Your task to perform on an android device: Open Youtube and go to "Your channel" Image 0: 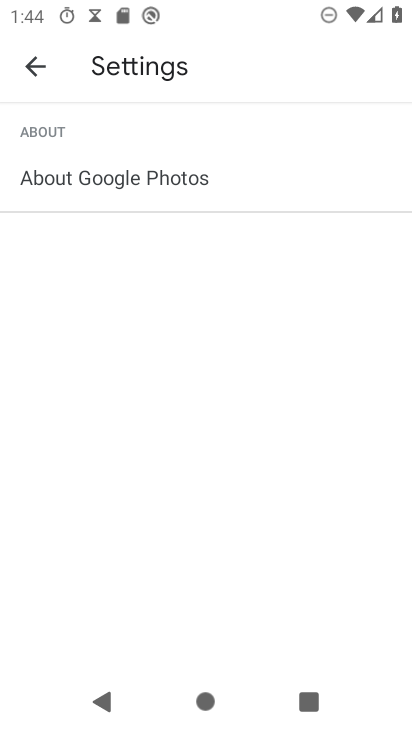
Step 0: press home button
Your task to perform on an android device: Open Youtube and go to "Your channel" Image 1: 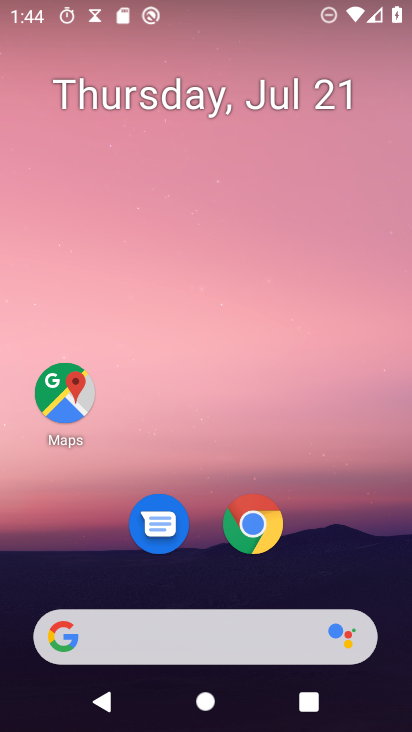
Step 1: drag from (267, 633) to (397, 122)
Your task to perform on an android device: Open Youtube and go to "Your channel" Image 2: 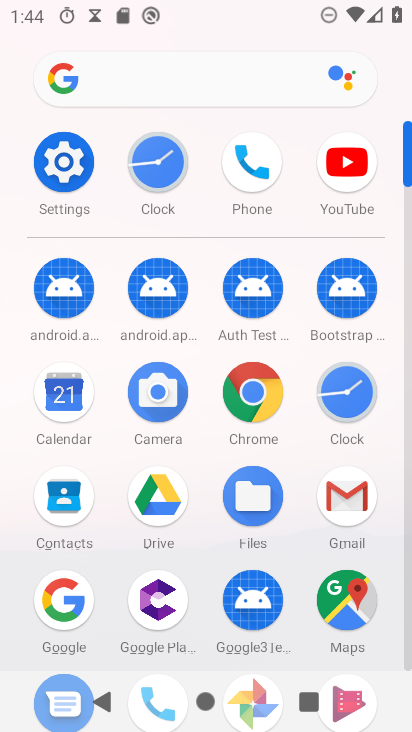
Step 2: drag from (298, 638) to (380, 275)
Your task to perform on an android device: Open Youtube and go to "Your channel" Image 3: 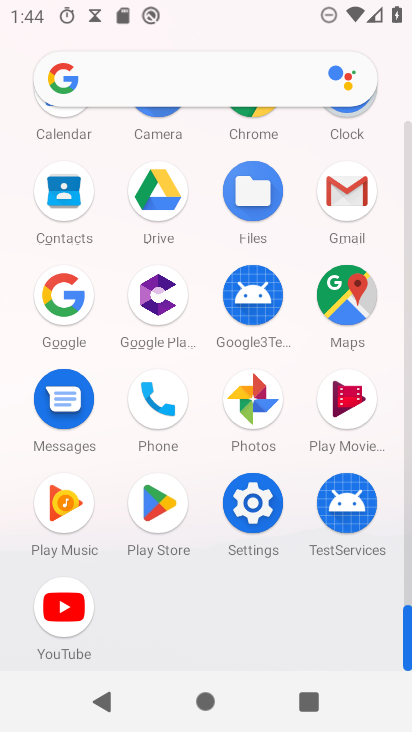
Step 3: click (56, 609)
Your task to perform on an android device: Open Youtube and go to "Your channel" Image 4: 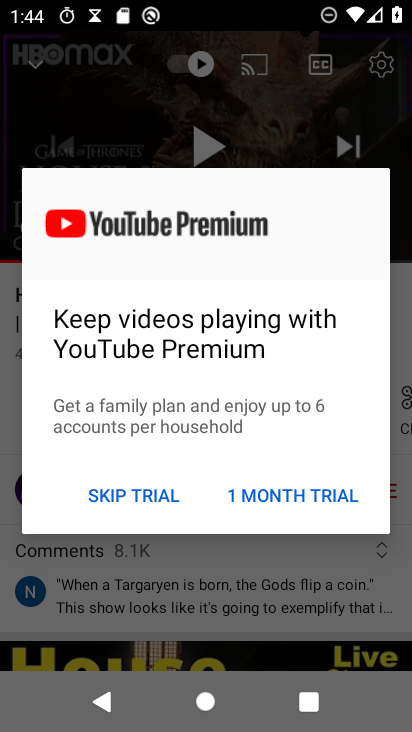
Step 4: click (153, 506)
Your task to perform on an android device: Open Youtube and go to "Your channel" Image 5: 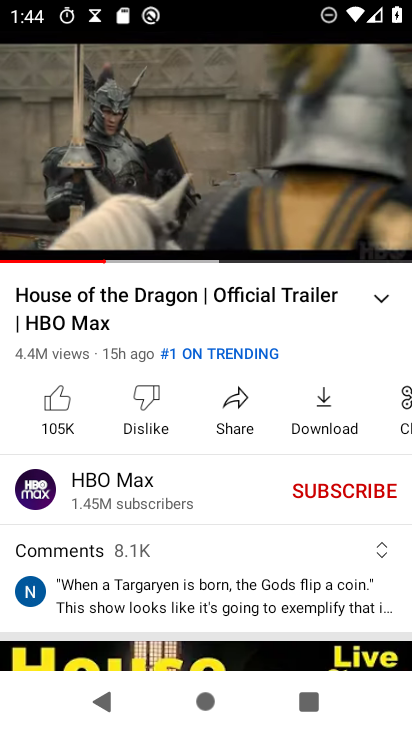
Step 5: press back button
Your task to perform on an android device: Open Youtube and go to "Your channel" Image 6: 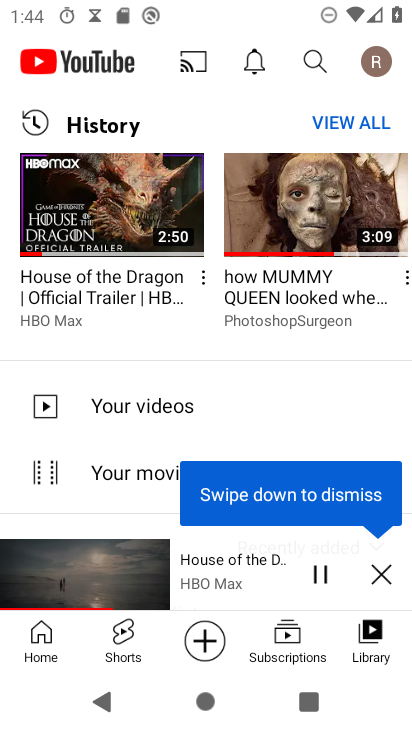
Step 6: click (379, 53)
Your task to perform on an android device: Open Youtube and go to "Your channel" Image 7: 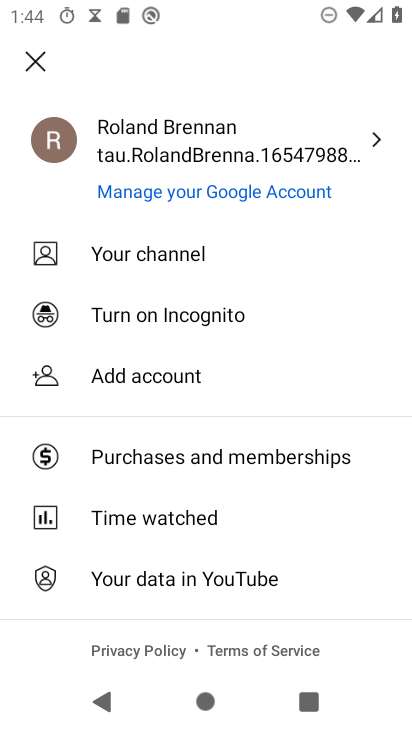
Step 7: click (187, 250)
Your task to perform on an android device: Open Youtube and go to "Your channel" Image 8: 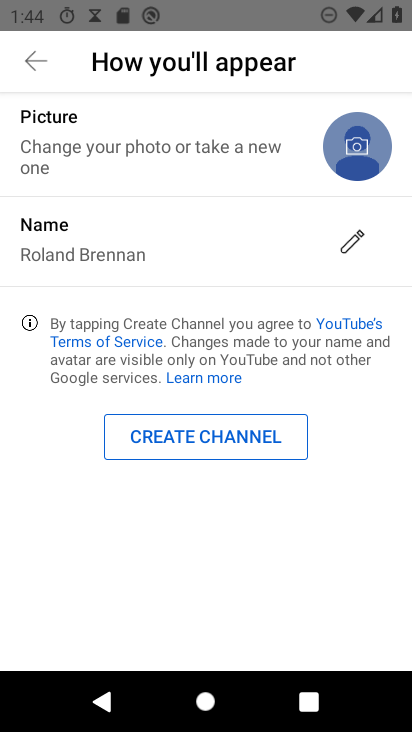
Step 8: task complete